Your task to perform on an android device: all mails in gmail Image 0: 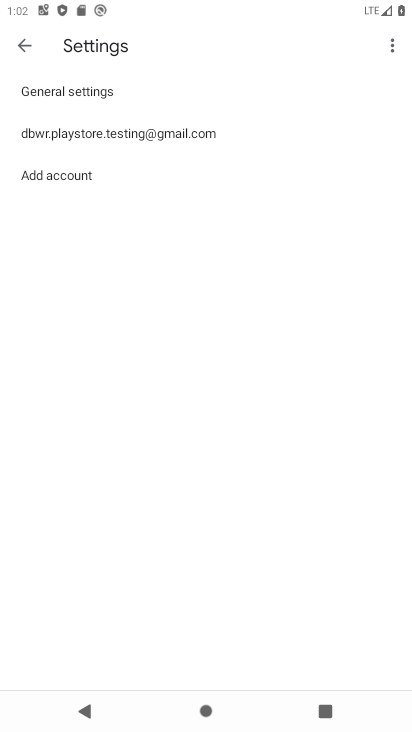
Step 0: press home button
Your task to perform on an android device: all mails in gmail Image 1: 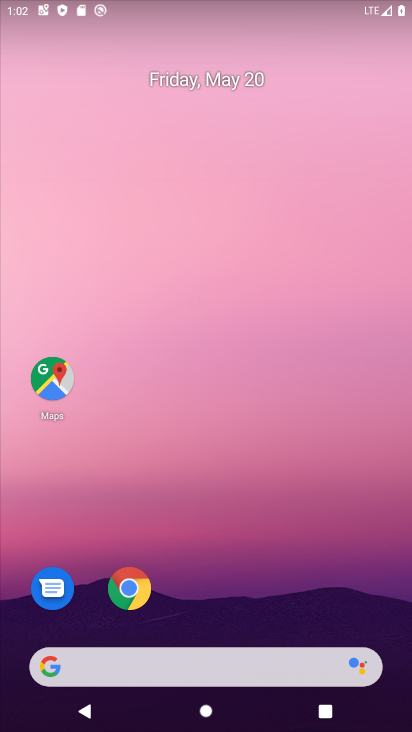
Step 1: drag from (373, 614) to (177, 13)
Your task to perform on an android device: all mails in gmail Image 2: 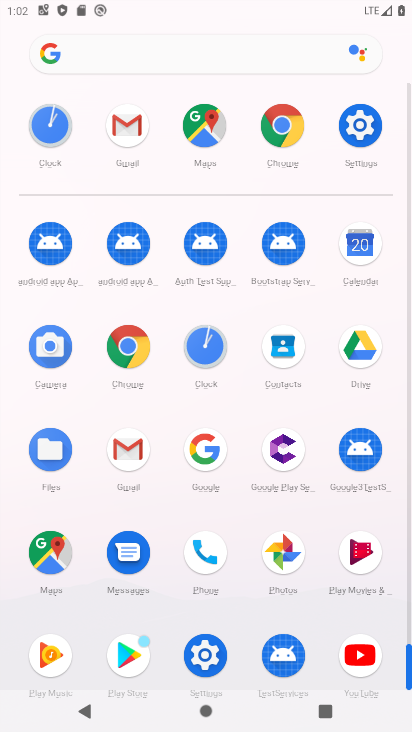
Step 2: click (127, 446)
Your task to perform on an android device: all mails in gmail Image 3: 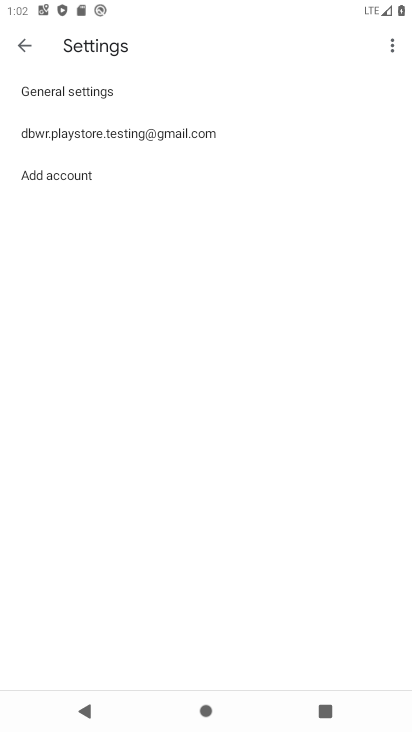
Step 3: press back button
Your task to perform on an android device: all mails in gmail Image 4: 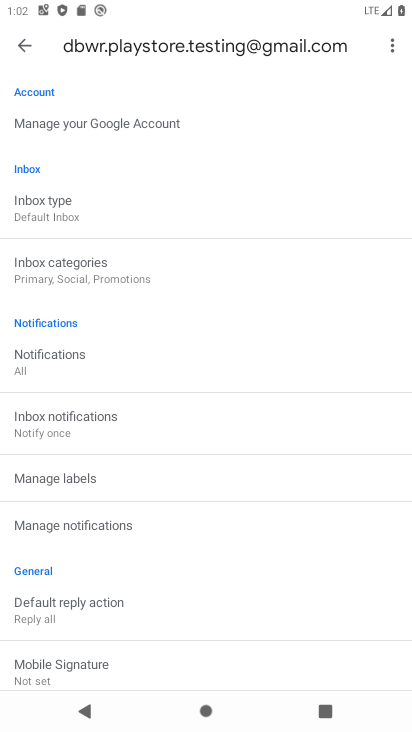
Step 4: press back button
Your task to perform on an android device: all mails in gmail Image 5: 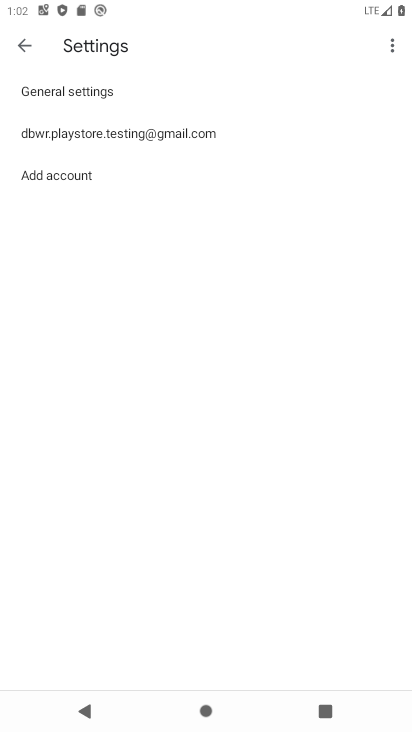
Step 5: press back button
Your task to perform on an android device: all mails in gmail Image 6: 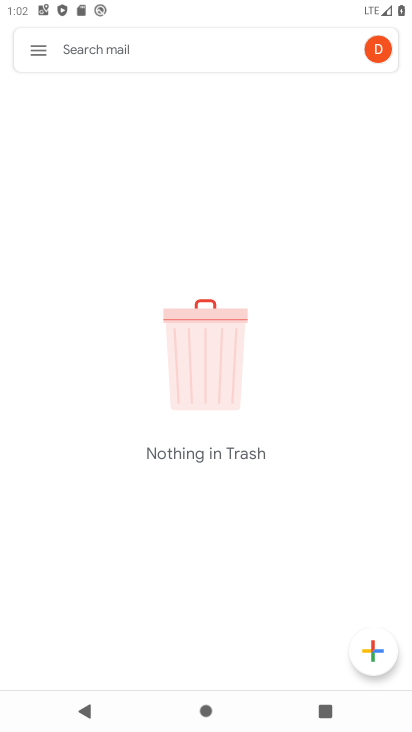
Step 6: click (42, 52)
Your task to perform on an android device: all mails in gmail Image 7: 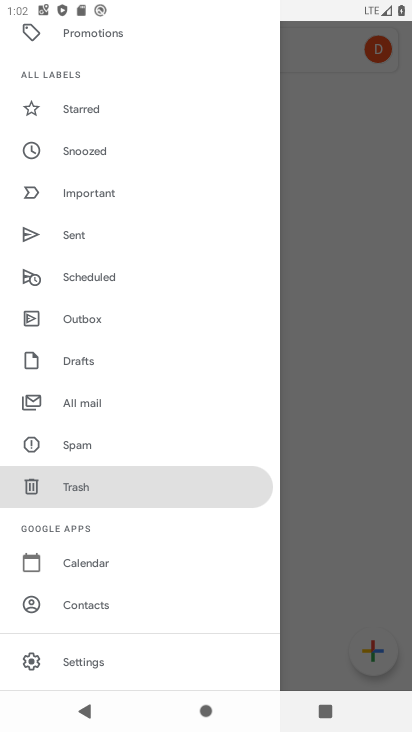
Step 7: click (74, 401)
Your task to perform on an android device: all mails in gmail Image 8: 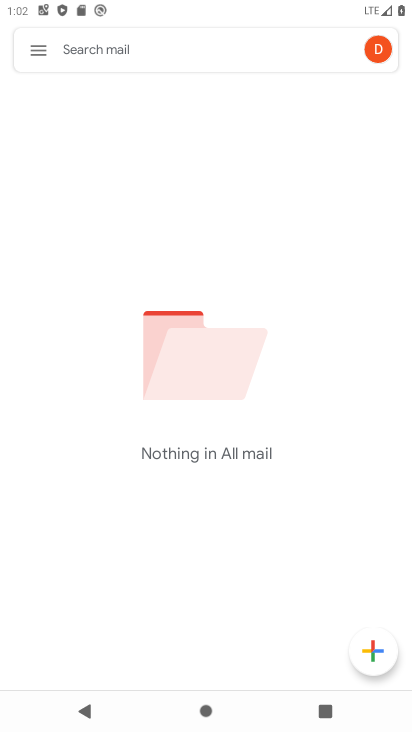
Step 8: task complete